Your task to perform on an android device: Open Youtube and go to "Your channel" Image 0: 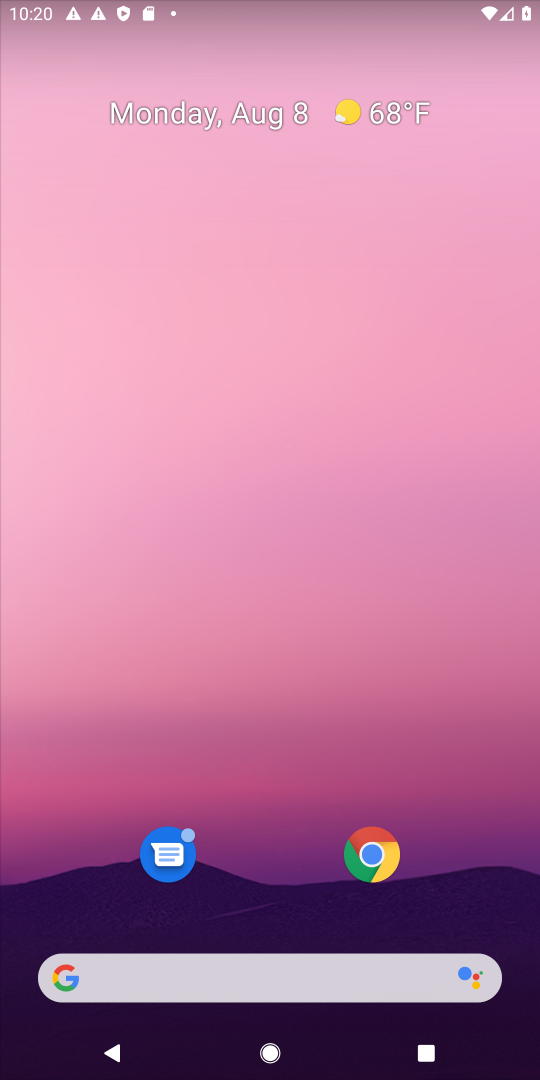
Step 0: drag from (298, 744) to (343, 114)
Your task to perform on an android device: Open Youtube and go to "Your channel" Image 1: 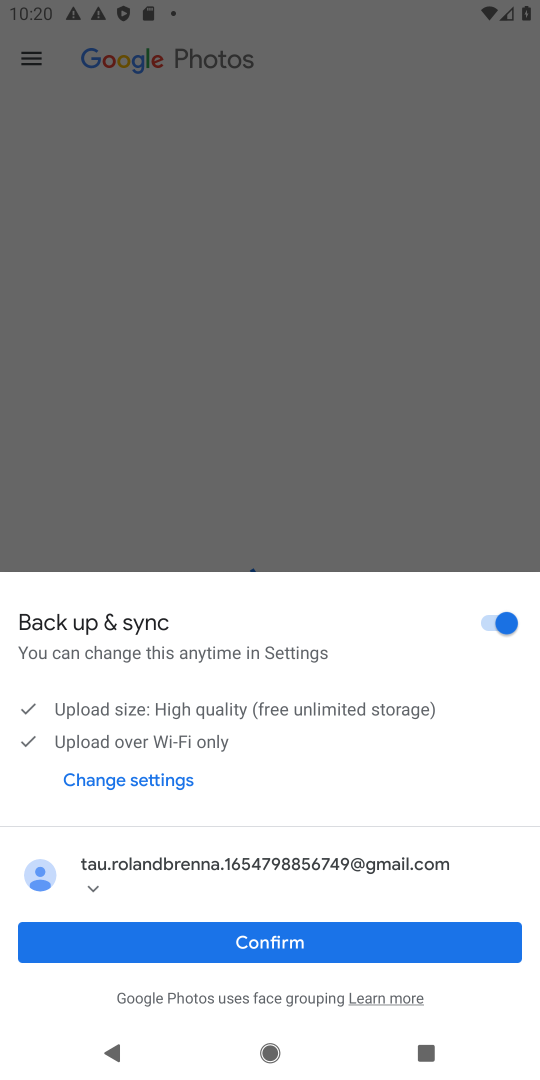
Step 1: press home button
Your task to perform on an android device: Open Youtube and go to "Your channel" Image 2: 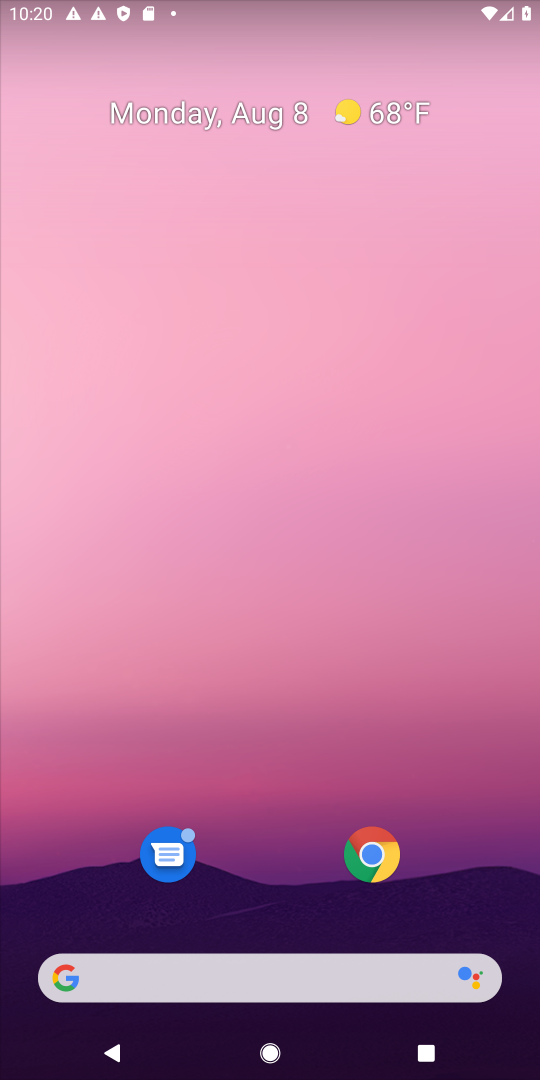
Step 2: drag from (279, 681) to (296, 120)
Your task to perform on an android device: Open Youtube and go to "Your channel" Image 3: 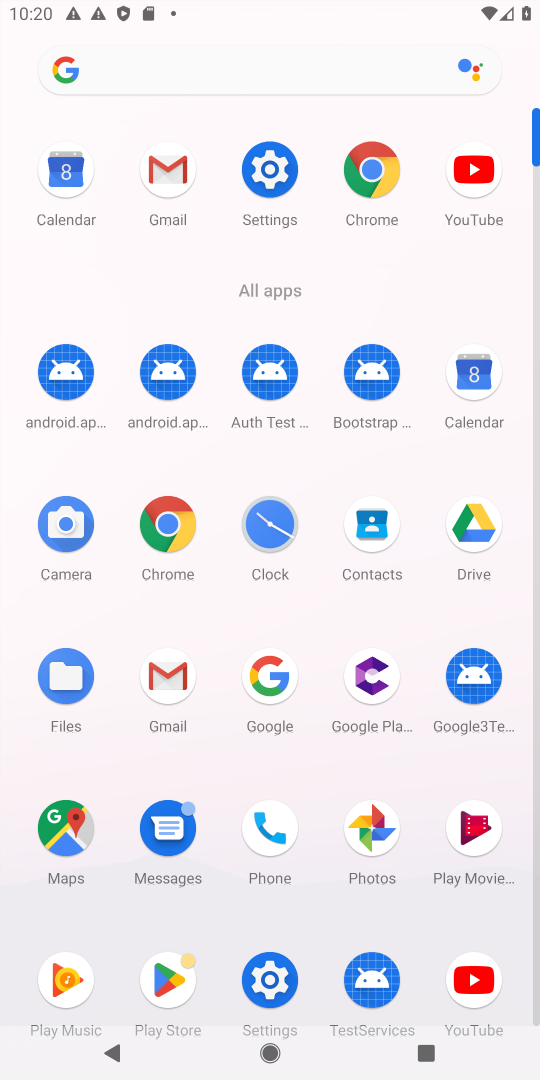
Step 3: click (478, 976)
Your task to perform on an android device: Open Youtube and go to "Your channel" Image 4: 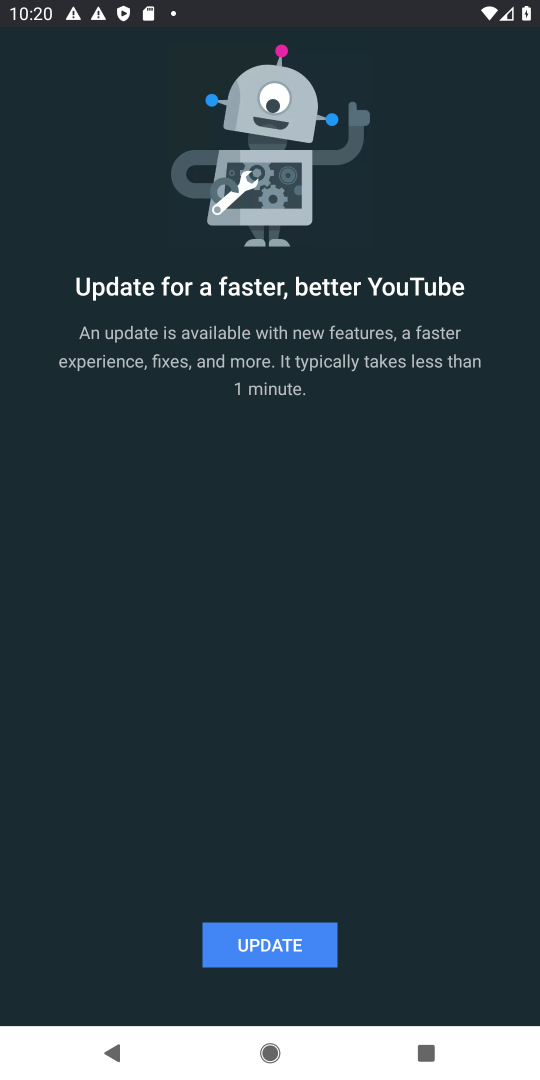
Step 4: task complete